Your task to perform on an android device: Turn off the flashlight Image 0: 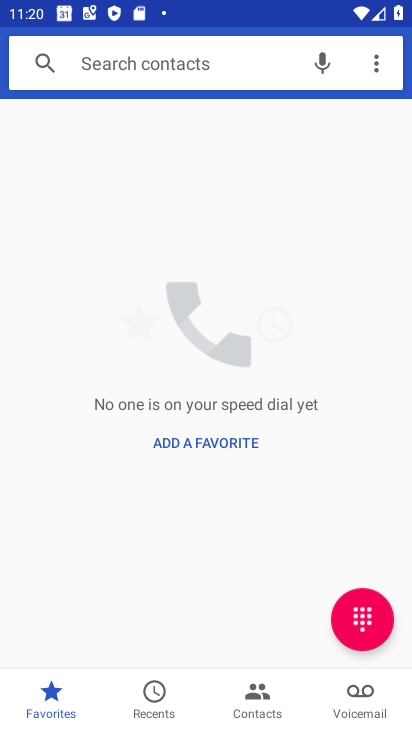
Step 0: press home button
Your task to perform on an android device: Turn off the flashlight Image 1: 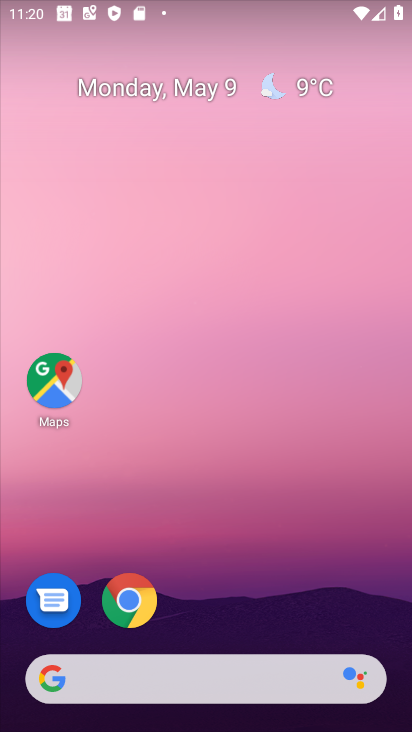
Step 1: drag from (373, 605) to (375, 73)
Your task to perform on an android device: Turn off the flashlight Image 2: 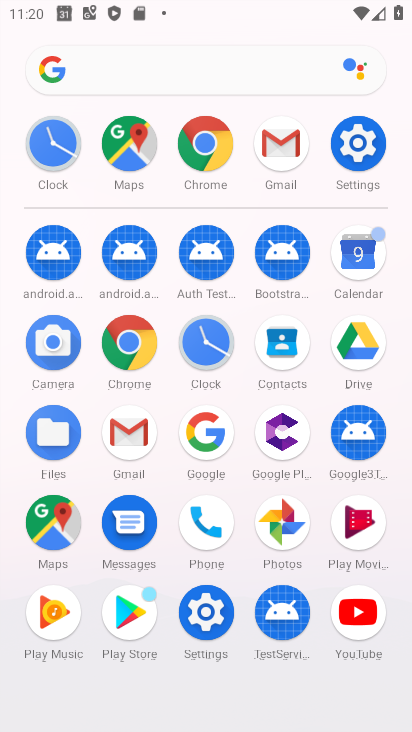
Step 2: click (337, 159)
Your task to perform on an android device: Turn off the flashlight Image 3: 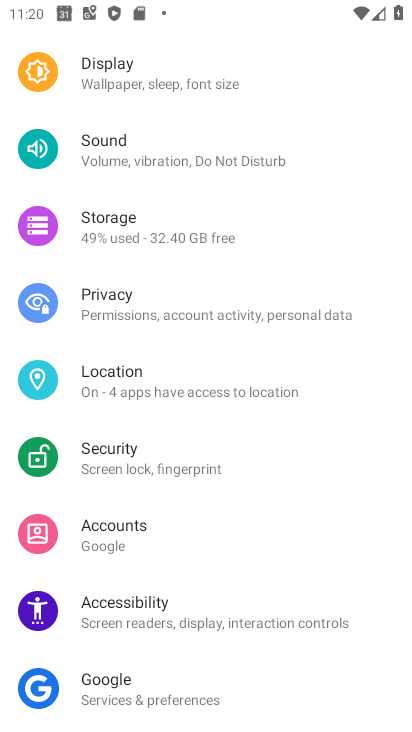
Step 3: drag from (233, 121) to (258, 464)
Your task to perform on an android device: Turn off the flashlight Image 4: 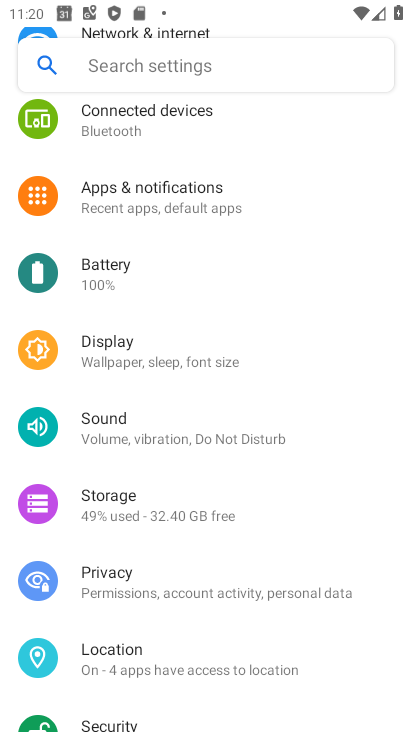
Step 4: click (225, 75)
Your task to perform on an android device: Turn off the flashlight Image 5: 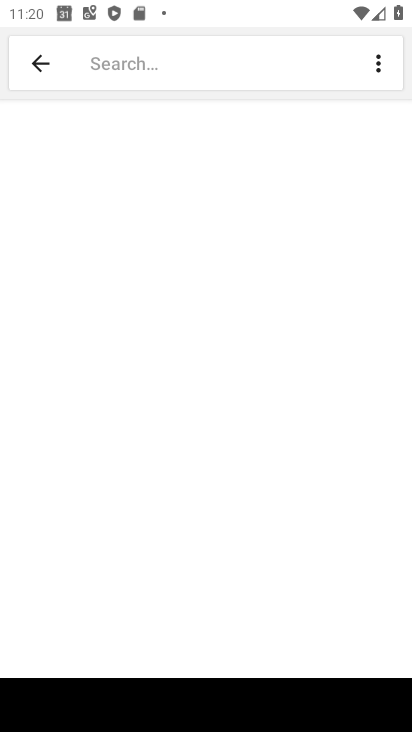
Step 5: type "flashlight"
Your task to perform on an android device: Turn off the flashlight Image 6: 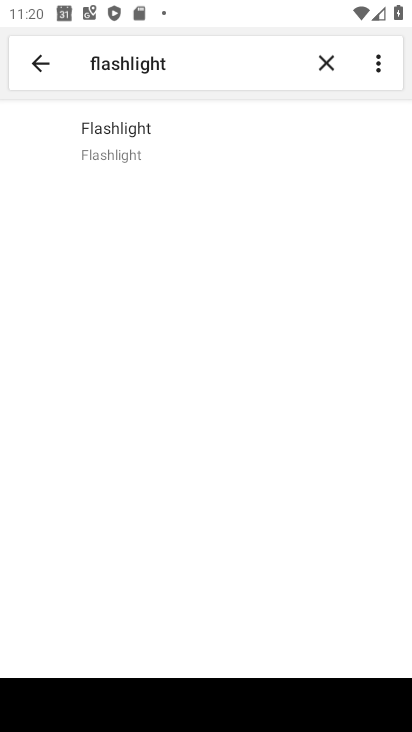
Step 6: click (172, 144)
Your task to perform on an android device: Turn off the flashlight Image 7: 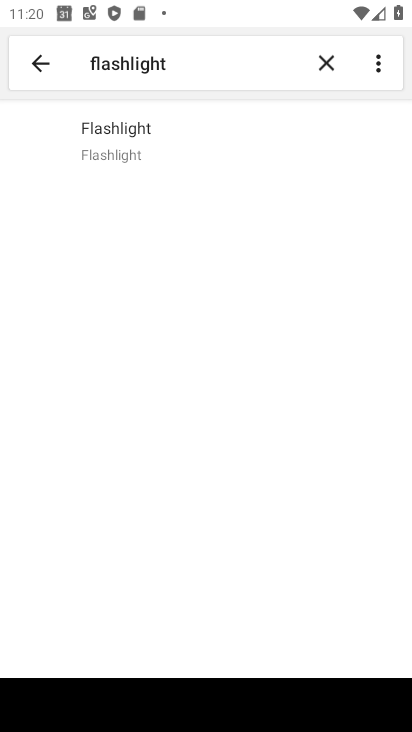
Step 7: task complete